Your task to perform on an android device: Go to network settings Image 0: 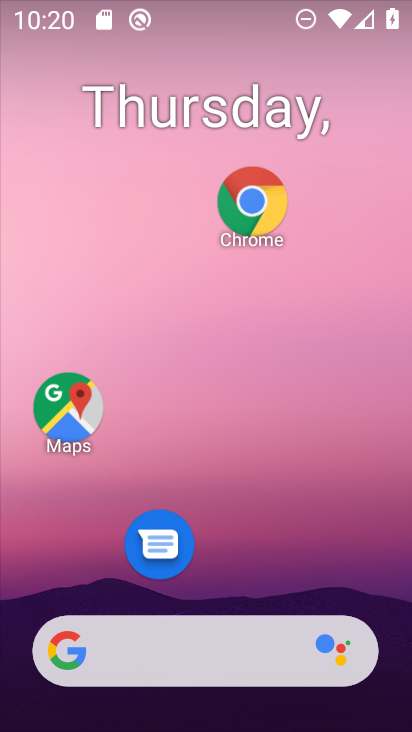
Step 0: drag from (227, 510) to (231, 123)
Your task to perform on an android device: Go to network settings Image 1: 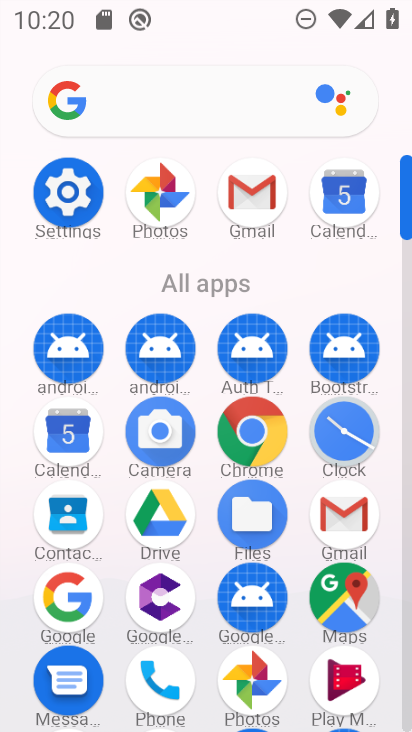
Step 1: click (68, 185)
Your task to perform on an android device: Go to network settings Image 2: 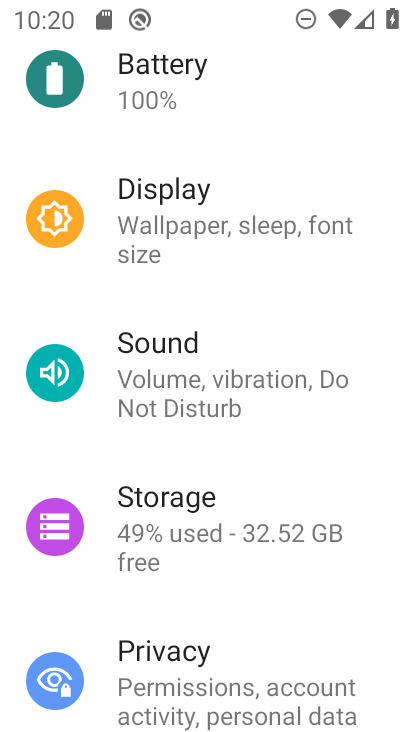
Step 2: drag from (207, 180) to (195, 728)
Your task to perform on an android device: Go to network settings Image 3: 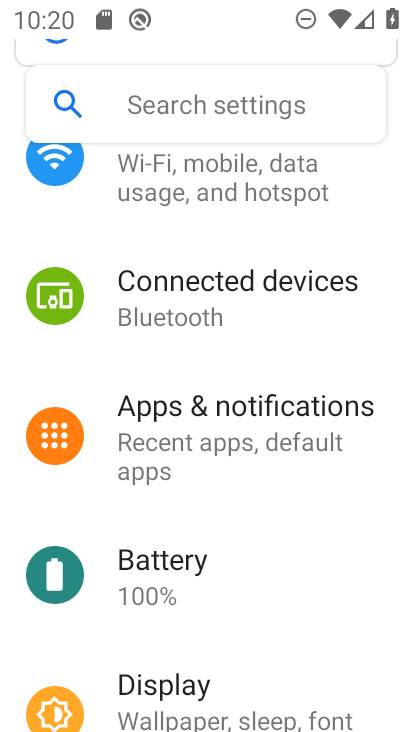
Step 3: click (155, 182)
Your task to perform on an android device: Go to network settings Image 4: 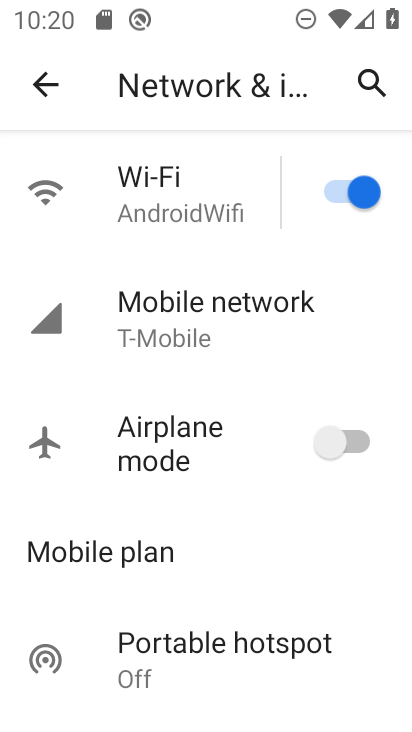
Step 4: drag from (212, 509) to (247, 128)
Your task to perform on an android device: Go to network settings Image 5: 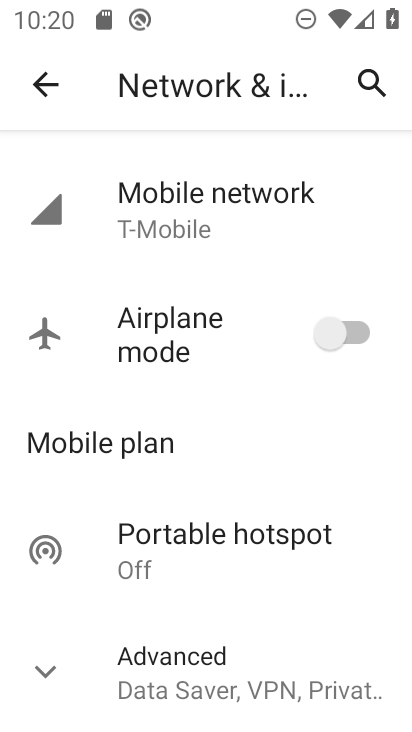
Step 5: click (49, 664)
Your task to perform on an android device: Go to network settings Image 6: 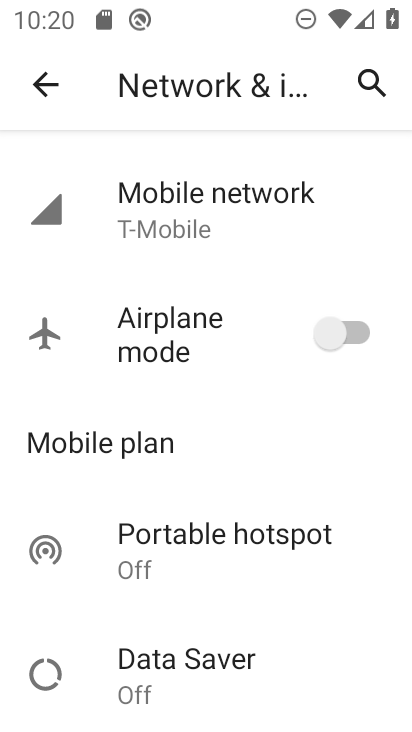
Step 6: task complete